Your task to perform on an android device: change the clock display to show seconds Image 0: 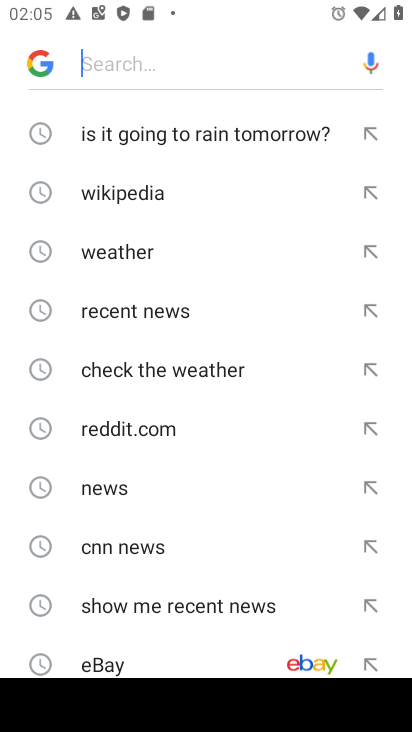
Step 0: press home button
Your task to perform on an android device: change the clock display to show seconds Image 1: 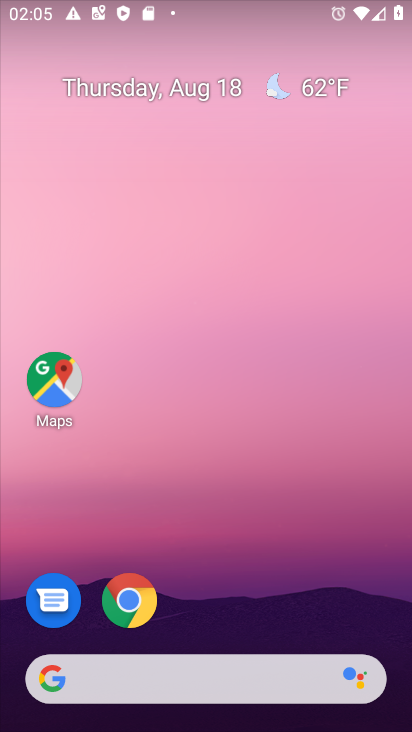
Step 1: drag from (270, 625) to (264, 98)
Your task to perform on an android device: change the clock display to show seconds Image 2: 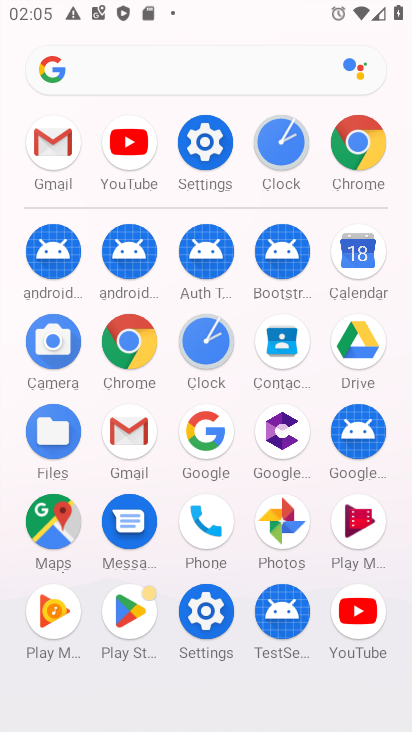
Step 2: click (218, 339)
Your task to perform on an android device: change the clock display to show seconds Image 3: 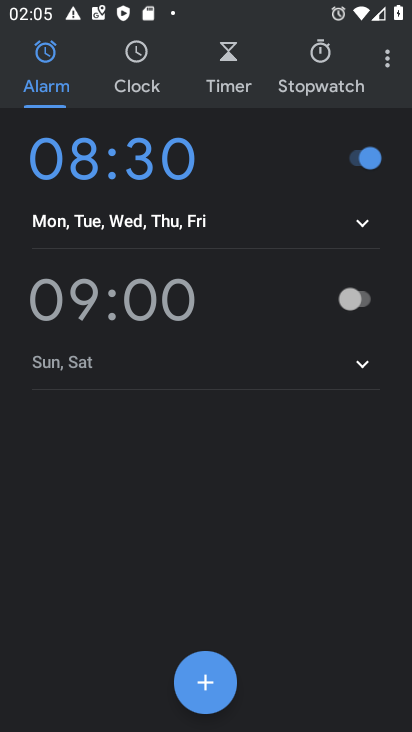
Step 3: click (383, 59)
Your task to perform on an android device: change the clock display to show seconds Image 4: 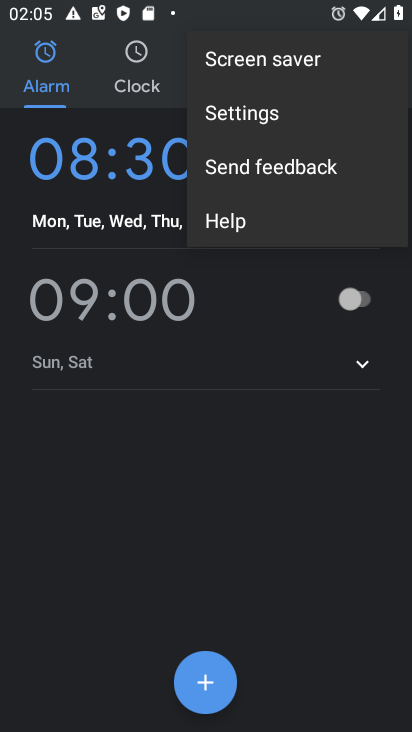
Step 4: click (248, 119)
Your task to perform on an android device: change the clock display to show seconds Image 5: 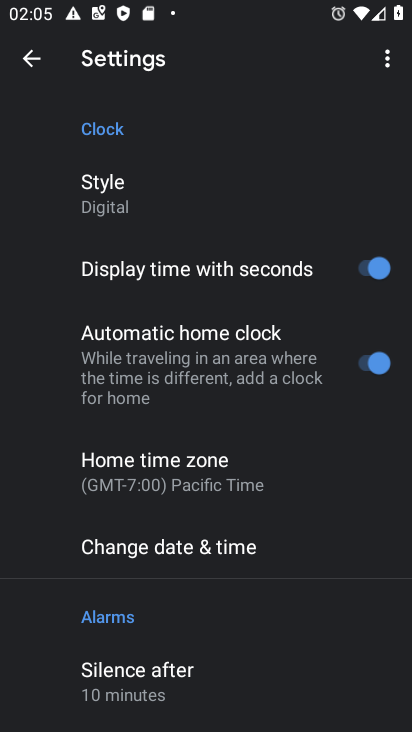
Step 5: task complete